Your task to perform on an android device: What's the weather? Image 0: 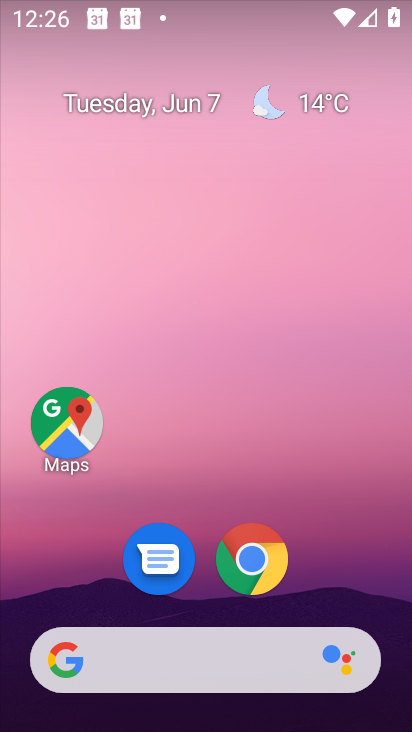
Step 0: click (273, 117)
Your task to perform on an android device: What's the weather? Image 1: 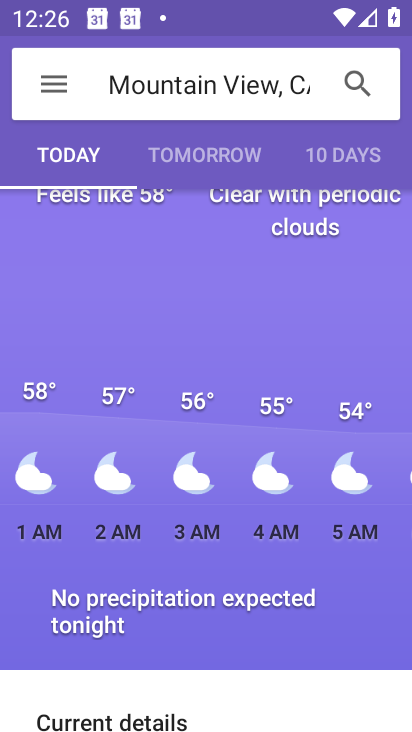
Step 1: task complete